Your task to perform on an android device: turn on sleep mode Image 0: 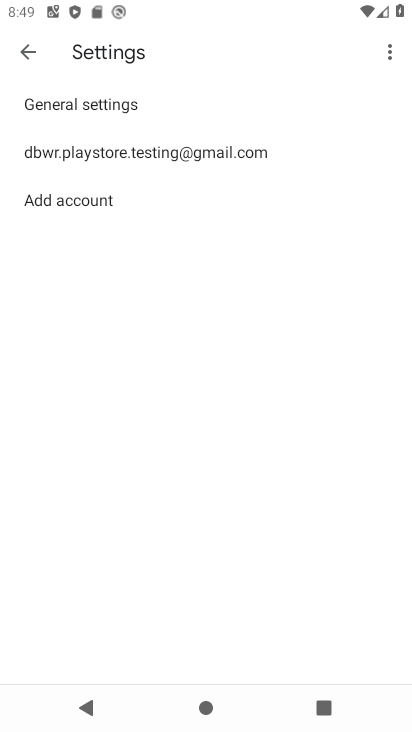
Step 0: press home button
Your task to perform on an android device: turn on sleep mode Image 1: 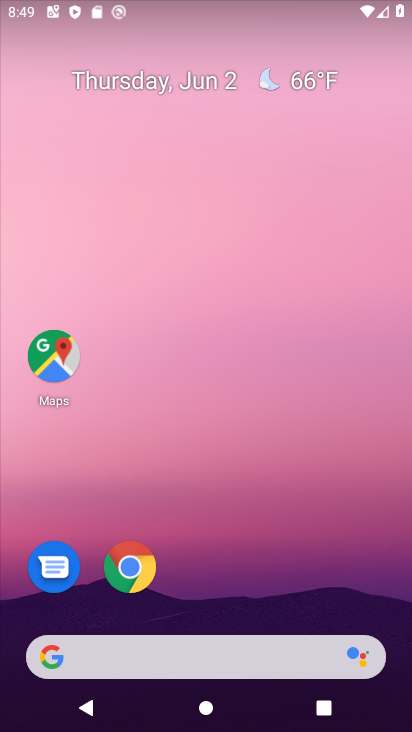
Step 1: drag from (195, 592) to (334, 4)
Your task to perform on an android device: turn on sleep mode Image 2: 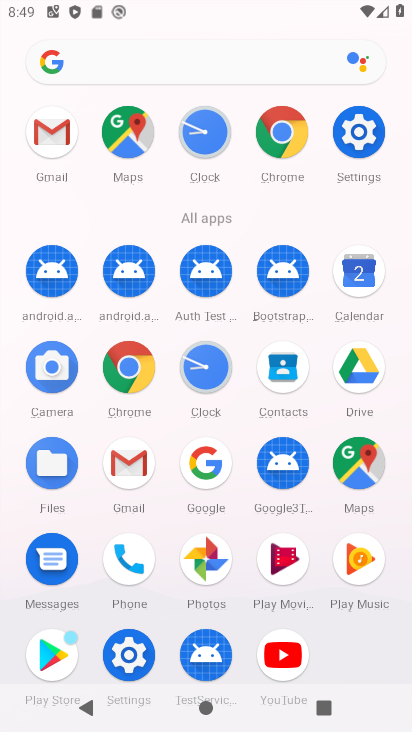
Step 2: click (365, 162)
Your task to perform on an android device: turn on sleep mode Image 3: 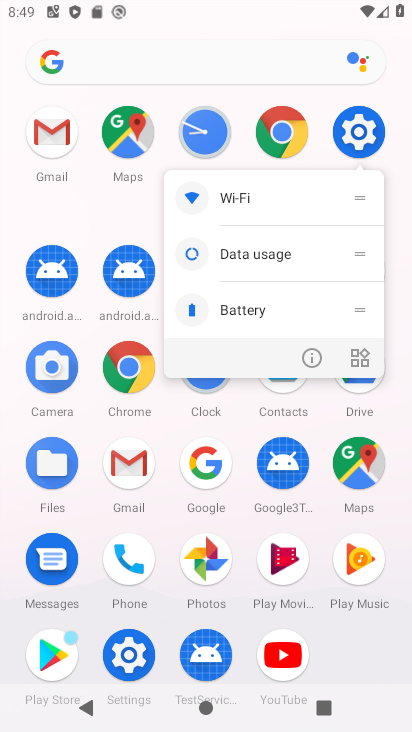
Step 3: click (360, 131)
Your task to perform on an android device: turn on sleep mode Image 4: 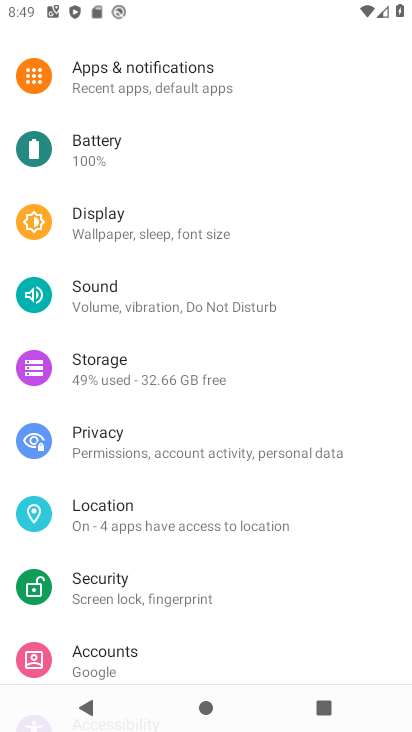
Step 4: drag from (176, 101) to (171, 615)
Your task to perform on an android device: turn on sleep mode Image 5: 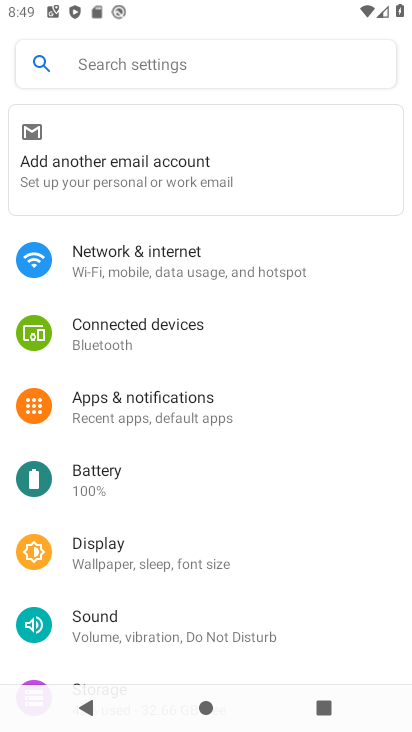
Step 5: click (172, 68)
Your task to perform on an android device: turn on sleep mode Image 6: 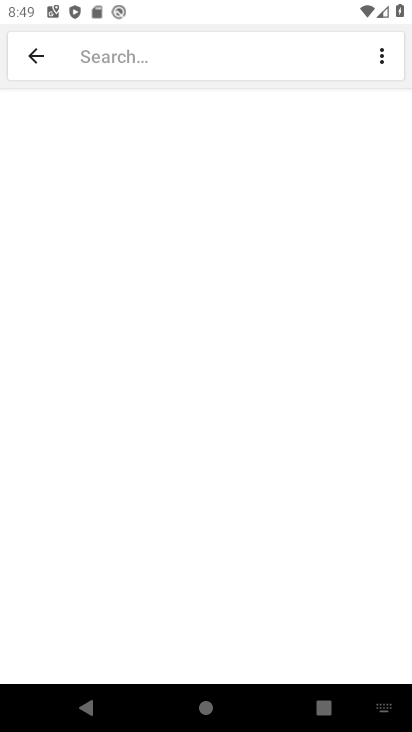
Step 6: type "sleep mode"
Your task to perform on an android device: turn on sleep mode Image 7: 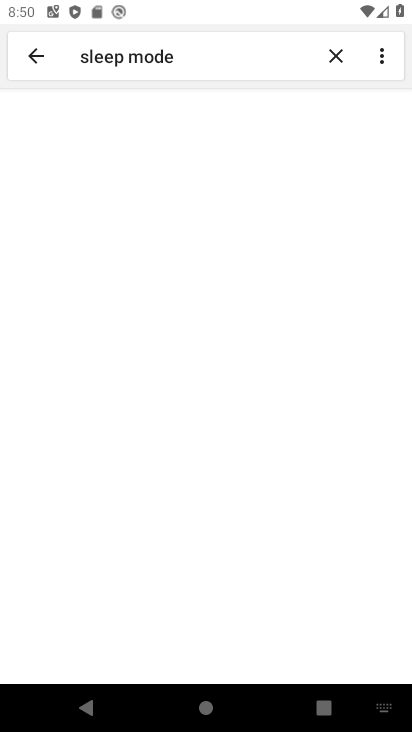
Step 7: click (212, 147)
Your task to perform on an android device: turn on sleep mode Image 8: 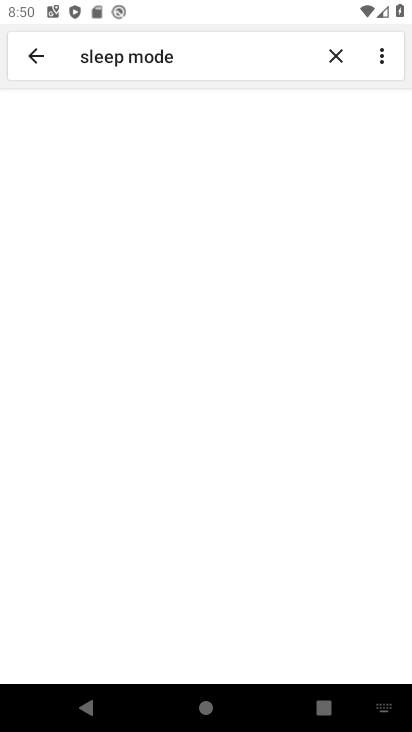
Step 8: task complete